Your task to perform on an android device: turn off improve location accuracy Image 0: 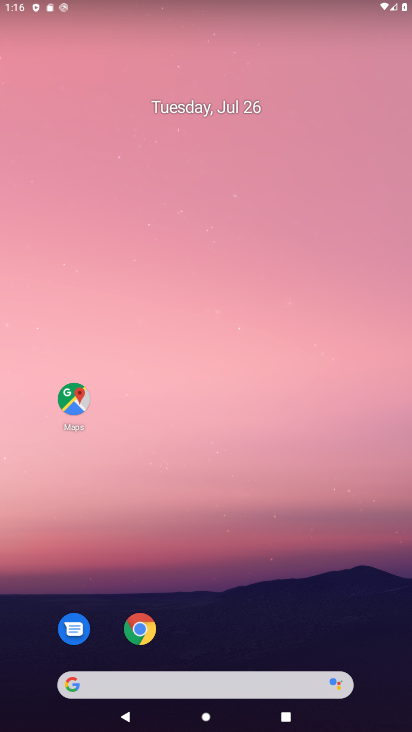
Step 0: drag from (249, 688) to (241, 55)
Your task to perform on an android device: turn off improve location accuracy Image 1: 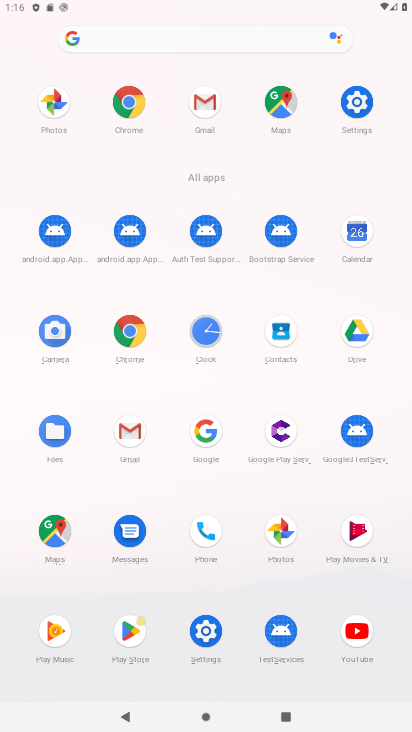
Step 1: click (358, 104)
Your task to perform on an android device: turn off improve location accuracy Image 2: 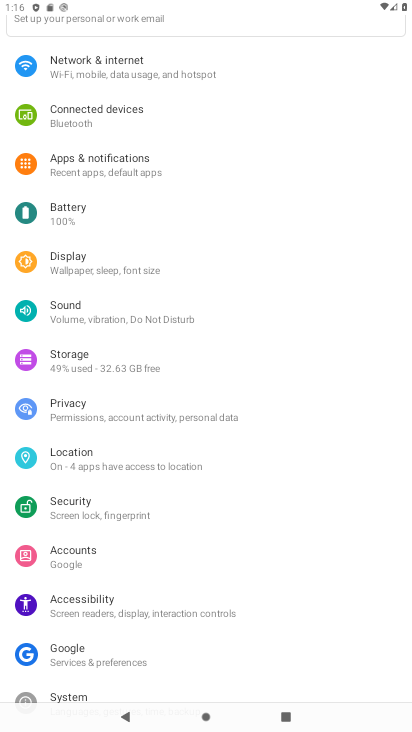
Step 2: click (97, 461)
Your task to perform on an android device: turn off improve location accuracy Image 3: 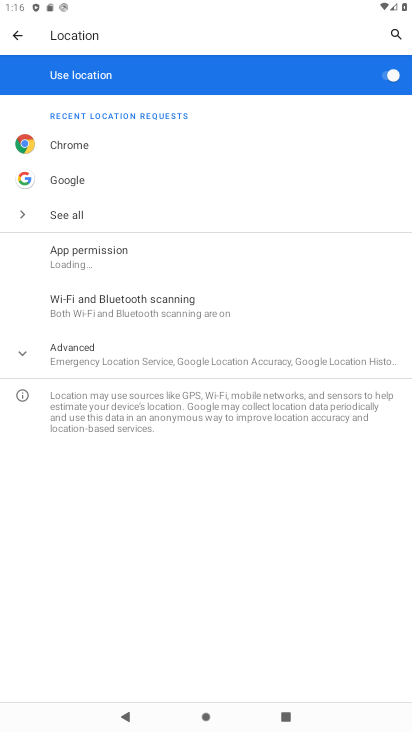
Step 3: click (120, 359)
Your task to perform on an android device: turn off improve location accuracy Image 4: 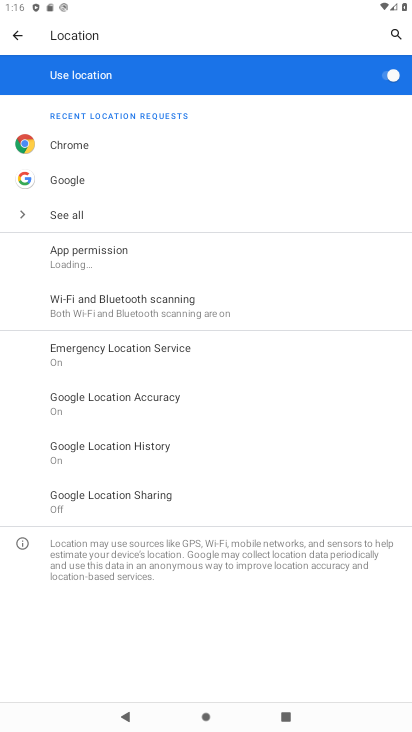
Step 4: click (122, 406)
Your task to perform on an android device: turn off improve location accuracy Image 5: 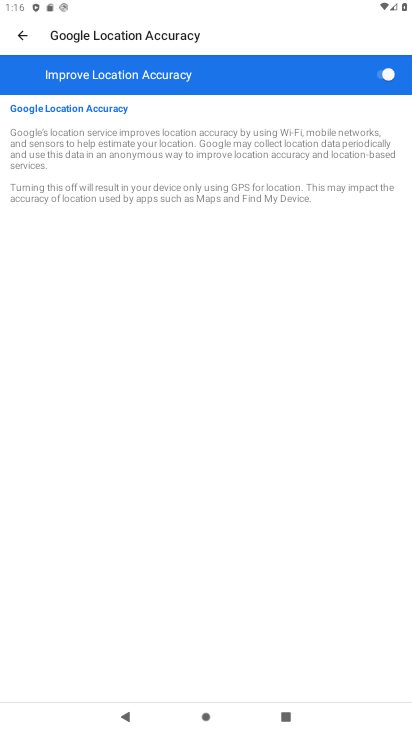
Step 5: click (377, 76)
Your task to perform on an android device: turn off improve location accuracy Image 6: 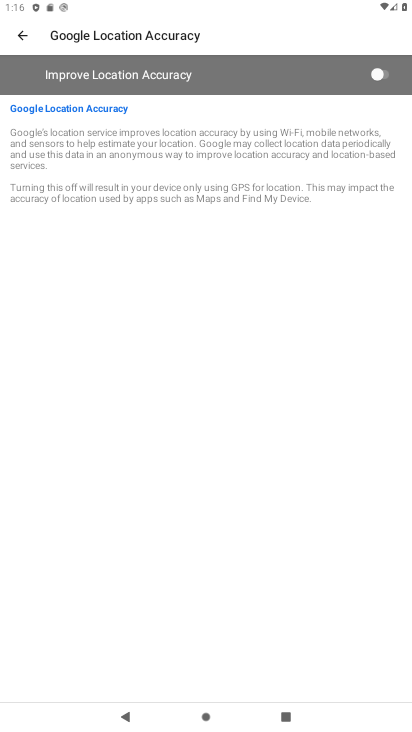
Step 6: task complete